Your task to perform on an android device: Open the phone app and click the voicemail tab. Image 0: 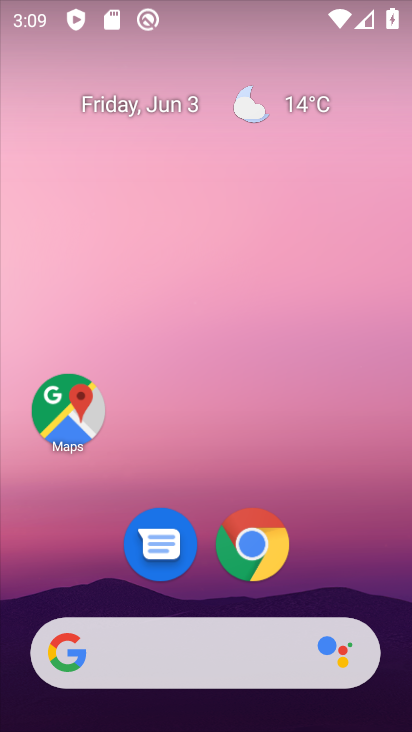
Step 0: drag from (331, 192) to (345, 14)
Your task to perform on an android device: Open the phone app and click the voicemail tab. Image 1: 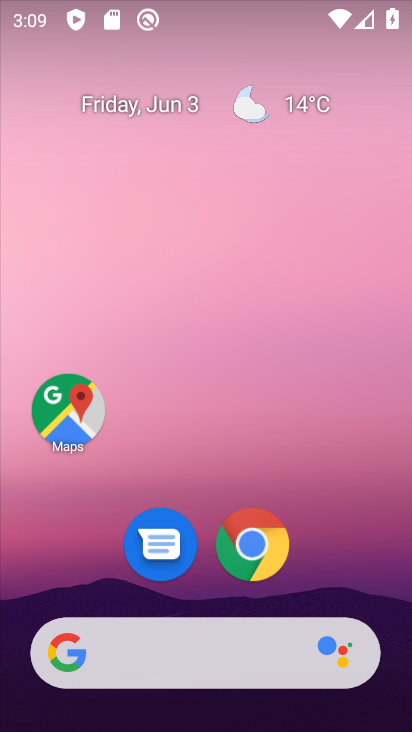
Step 1: drag from (403, 590) to (312, 81)
Your task to perform on an android device: Open the phone app and click the voicemail tab. Image 2: 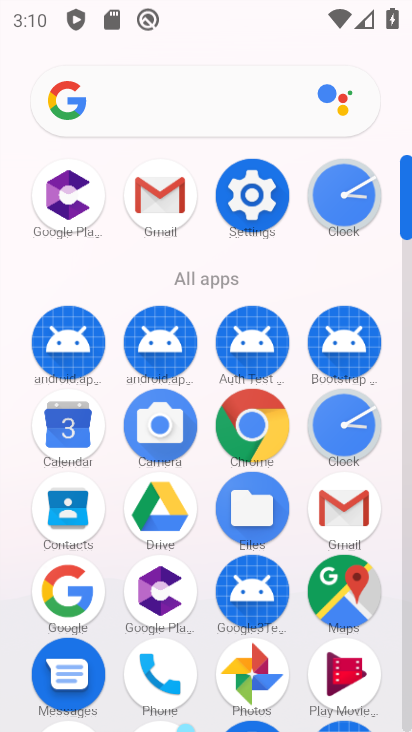
Step 2: click (408, 663)
Your task to perform on an android device: Open the phone app and click the voicemail tab. Image 3: 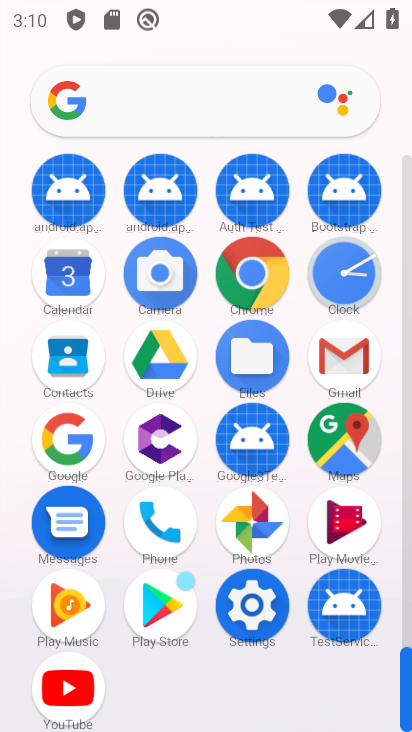
Step 3: click (157, 520)
Your task to perform on an android device: Open the phone app and click the voicemail tab. Image 4: 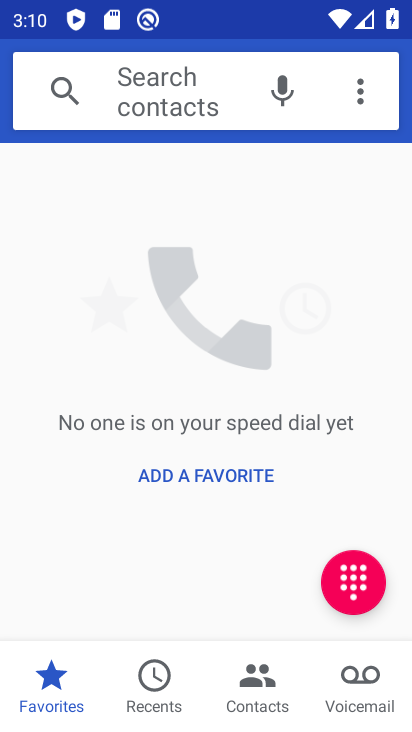
Step 4: click (350, 683)
Your task to perform on an android device: Open the phone app and click the voicemail tab. Image 5: 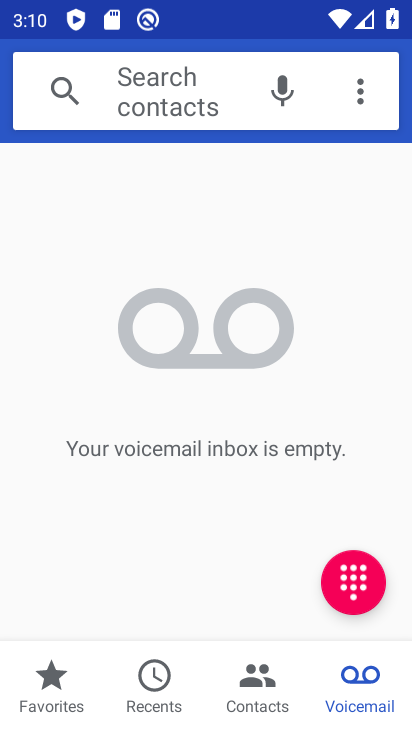
Step 5: task complete